Your task to perform on an android device: Search for "razer huntsman" on costco, select the first entry, and add it to the cart. Image 0: 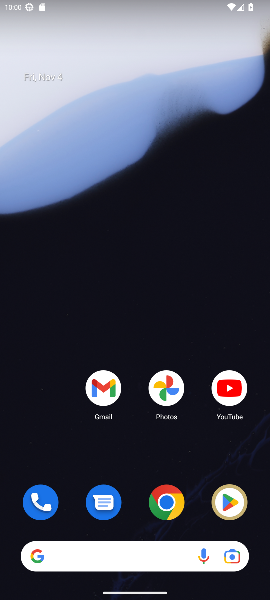
Step 0: click (172, 498)
Your task to perform on an android device: Search for "razer huntsman" on costco, select the first entry, and add it to the cart. Image 1: 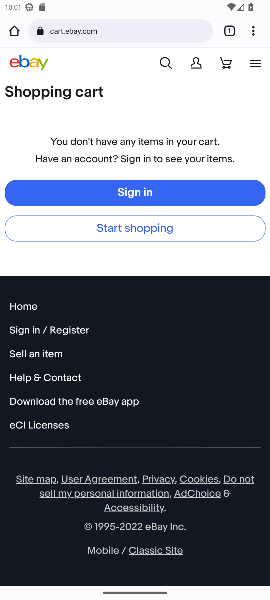
Step 1: click (17, 33)
Your task to perform on an android device: Search for "razer huntsman" on costco, select the first entry, and add it to the cart. Image 2: 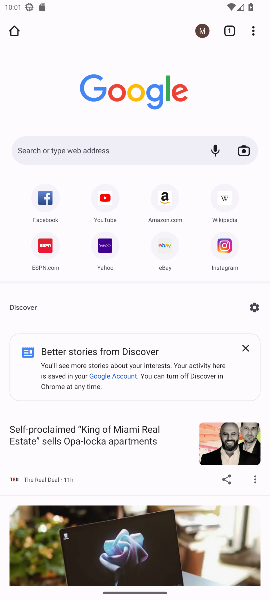
Step 2: click (178, 153)
Your task to perform on an android device: Search for "razer huntsman" on costco, select the first entry, and add it to the cart. Image 3: 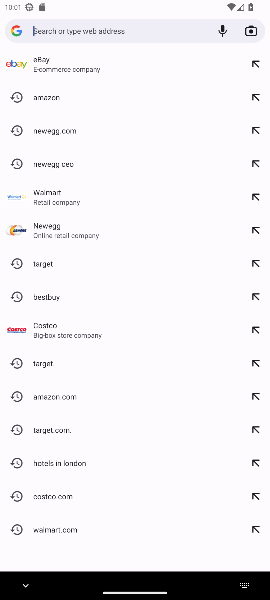
Step 3: type "costco"
Your task to perform on an android device: Search for "razer huntsman" on costco, select the first entry, and add it to the cart. Image 4: 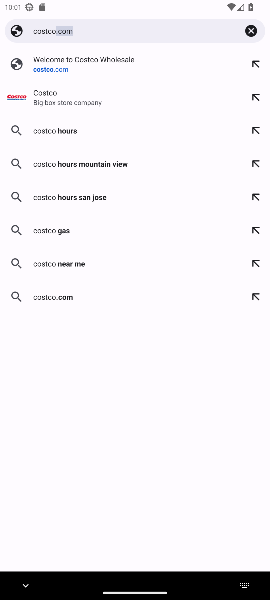
Step 4: click (206, 30)
Your task to perform on an android device: Search for "razer huntsman" on costco, select the first entry, and add it to the cart. Image 5: 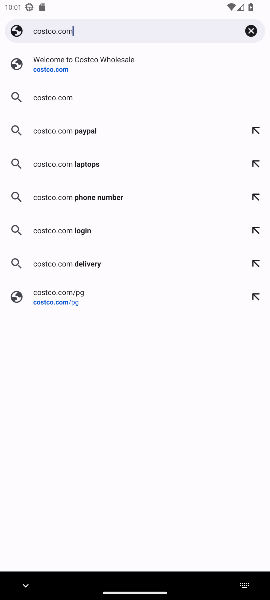
Step 5: click (61, 95)
Your task to perform on an android device: Search for "razer huntsman" on costco, select the first entry, and add it to the cart. Image 6: 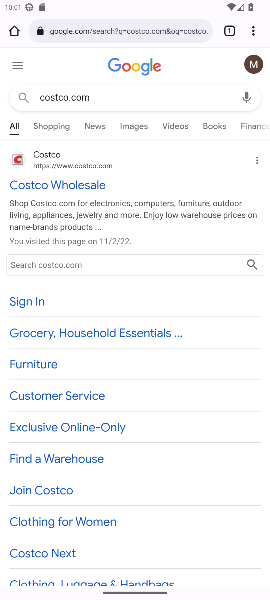
Step 6: drag from (138, 366) to (171, 195)
Your task to perform on an android device: Search for "razer huntsman" on costco, select the first entry, and add it to the cart. Image 7: 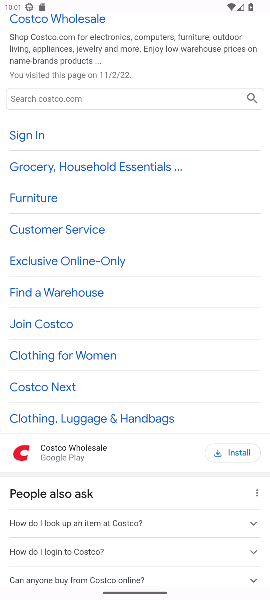
Step 7: drag from (116, 161) to (158, 461)
Your task to perform on an android device: Search for "razer huntsman" on costco, select the first entry, and add it to the cart. Image 8: 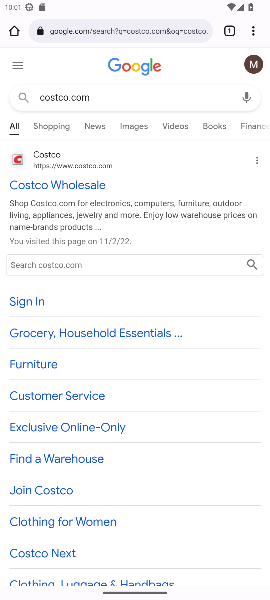
Step 8: click (62, 162)
Your task to perform on an android device: Search for "razer huntsman" on costco, select the first entry, and add it to the cart. Image 9: 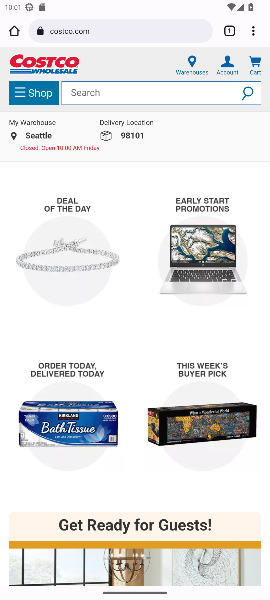
Step 9: click (187, 91)
Your task to perform on an android device: Search for "razer huntsman" on costco, select the first entry, and add it to the cart. Image 10: 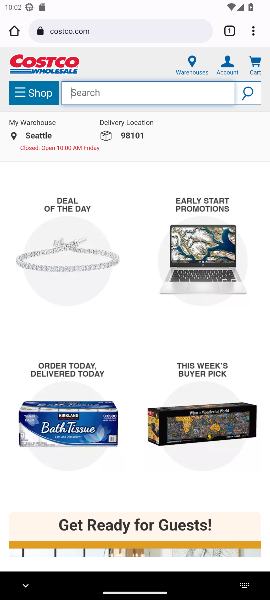
Step 10: type "razer huntsman"
Your task to perform on an android device: Search for "razer huntsman" on costco, select the first entry, and add it to the cart. Image 11: 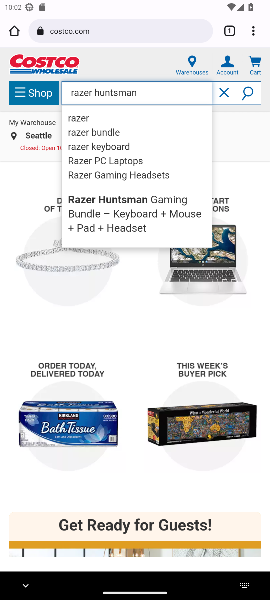
Step 11: click (245, 138)
Your task to perform on an android device: Search for "razer huntsman" on costco, select the first entry, and add it to the cart. Image 12: 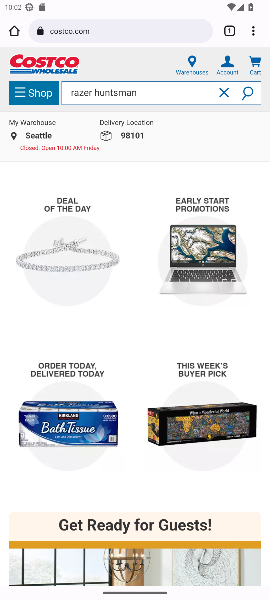
Step 12: task complete